Your task to perform on an android device: Open internet settings Image 0: 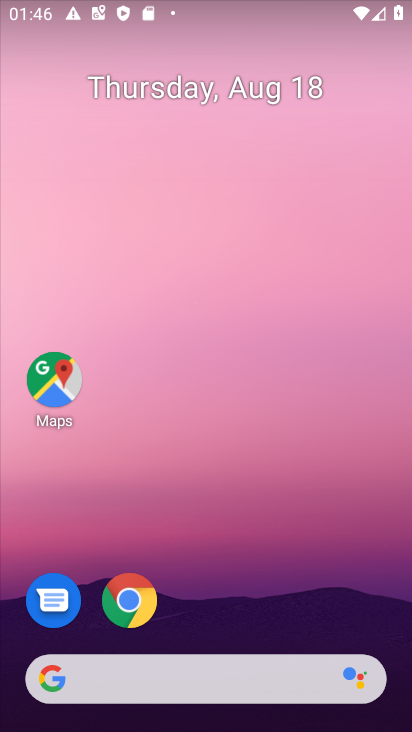
Step 0: press home button
Your task to perform on an android device: Open internet settings Image 1: 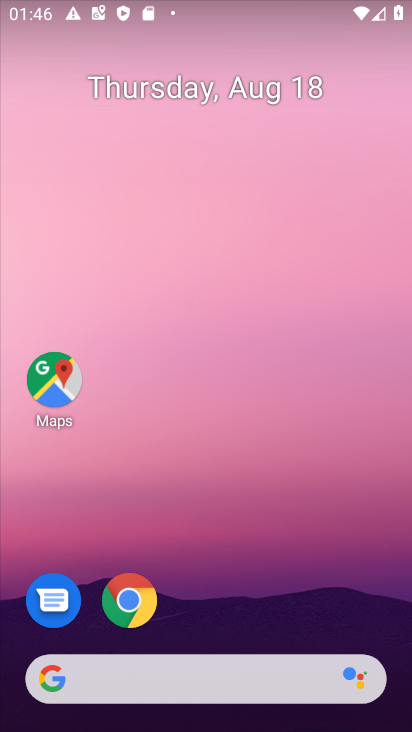
Step 1: drag from (267, 595) to (266, 80)
Your task to perform on an android device: Open internet settings Image 2: 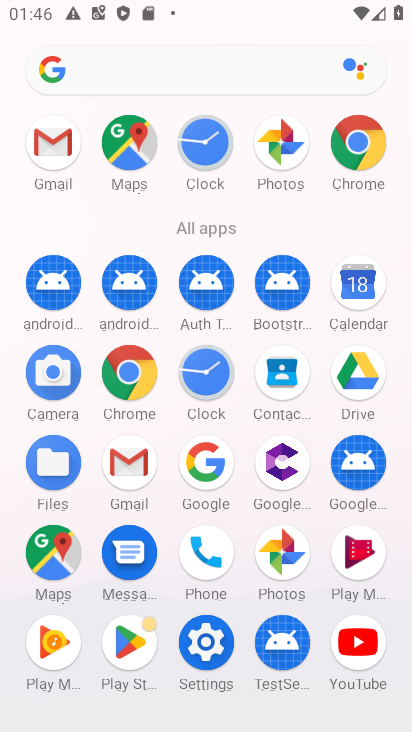
Step 2: click (207, 647)
Your task to perform on an android device: Open internet settings Image 3: 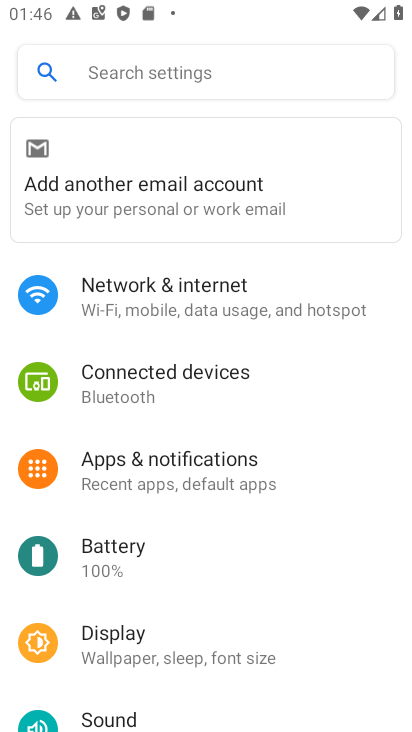
Step 3: click (176, 298)
Your task to perform on an android device: Open internet settings Image 4: 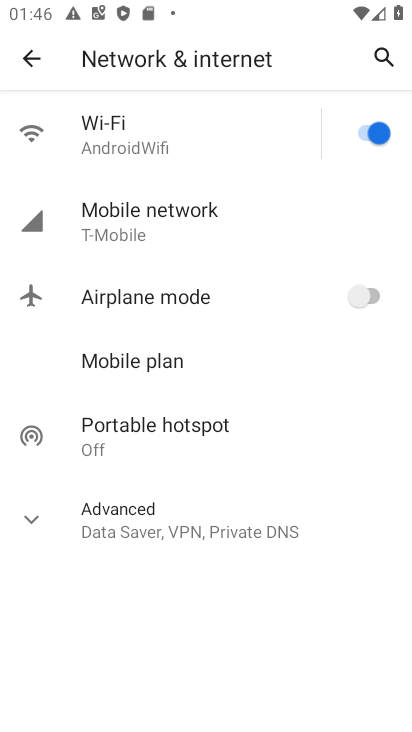
Step 4: task complete